Your task to perform on an android device: empty trash in the gmail app Image 0: 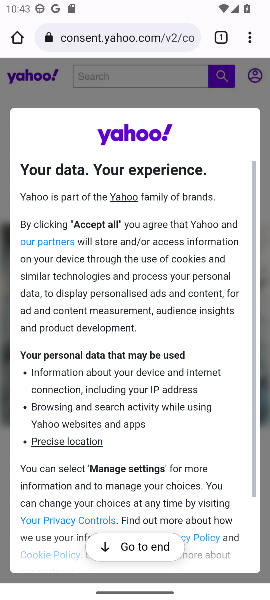
Step 0: press home button
Your task to perform on an android device: empty trash in the gmail app Image 1: 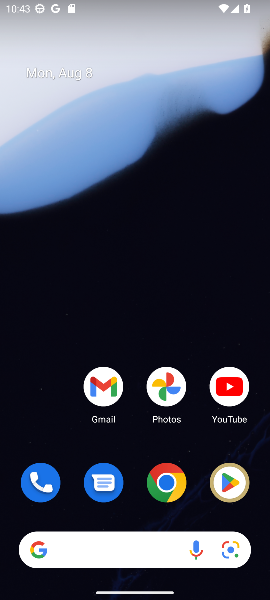
Step 1: click (172, 381)
Your task to perform on an android device: empty trash in the gmail app Image 2: 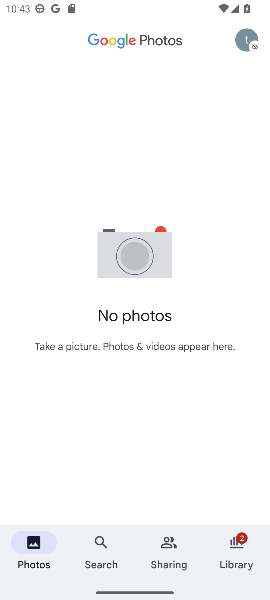
Step 2: click (226, 546)
Your task to perform on an android device: empty trash in the gmail app Image 3: 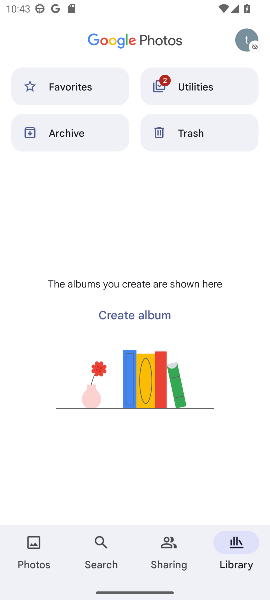
Step 3: click (166, 132)
Your task to perform on an android device: empty trash in the gmail app Image 4: 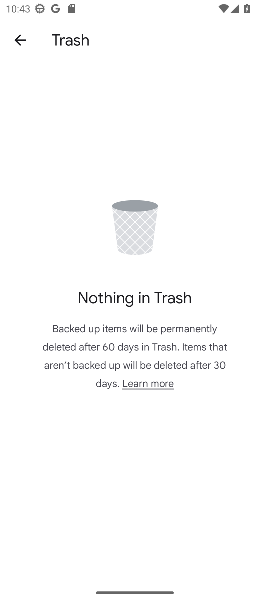
Step 4: task complete